Your task to perform on an android device: turn on wifi Image 0: 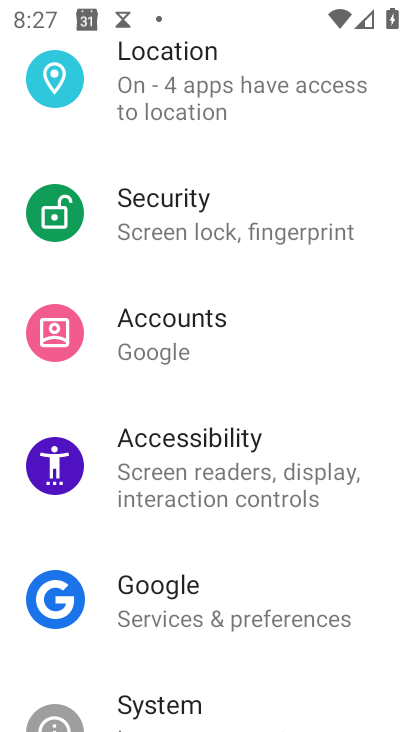
Step 0: drag from (309, 171) to (293, 534)
Your task to perform on an android device: turn on wifi Image 1: 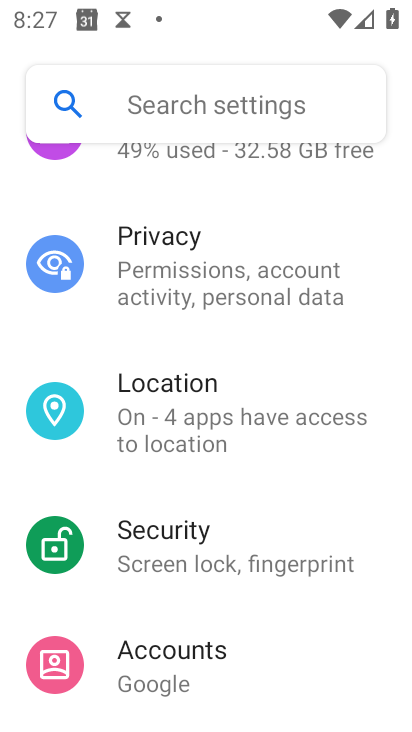
Step 1: drag from (290, 211) to (293, 564)
Your task to perform on an android device: turn on wifi Image 2: 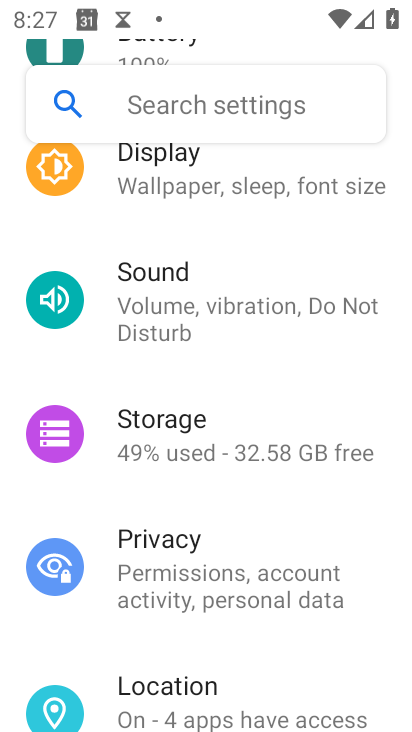
Step 2: drag from (335, 155) to (334, 530)
Your task to perform on an android device: turn on wifi Image 3: 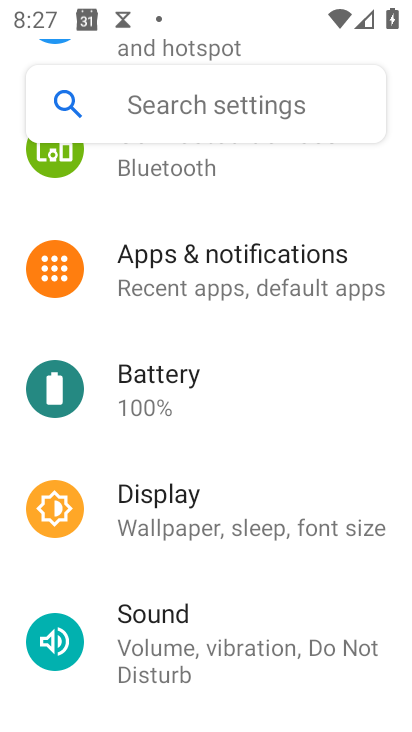
Step 3: drag from (334, 205) to (326, 559)
Your task to perform on an android device: turn on wifi Image 4: 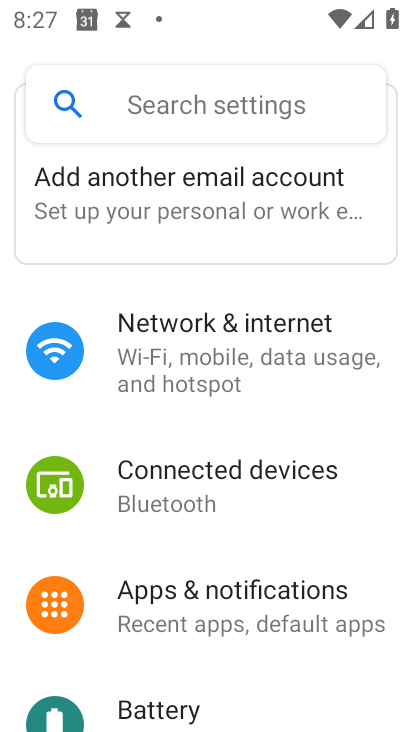
Step 4: click (203, 349)
Your task to perform on an android device: turn on wifi Image 5: 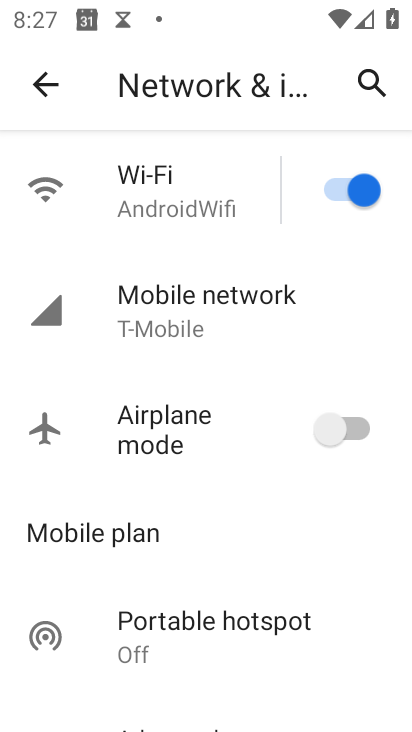
Step 5: task complete